Your task to perform on an android device: turn off improve location accuracy Image 0: 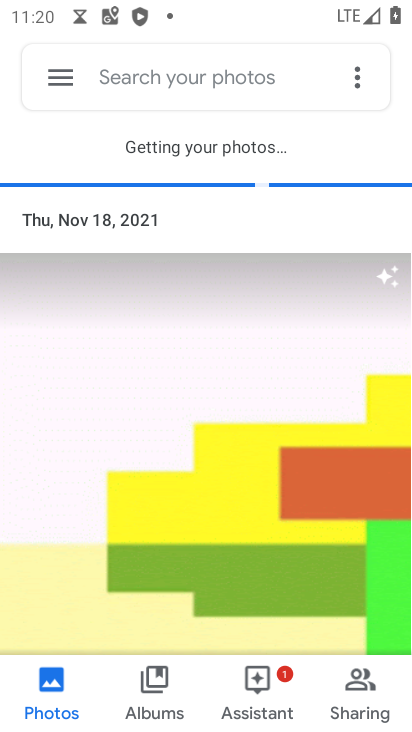
Step 0: press home button
Your task to perform on an android device: turn off improve location accuracy Image 1: 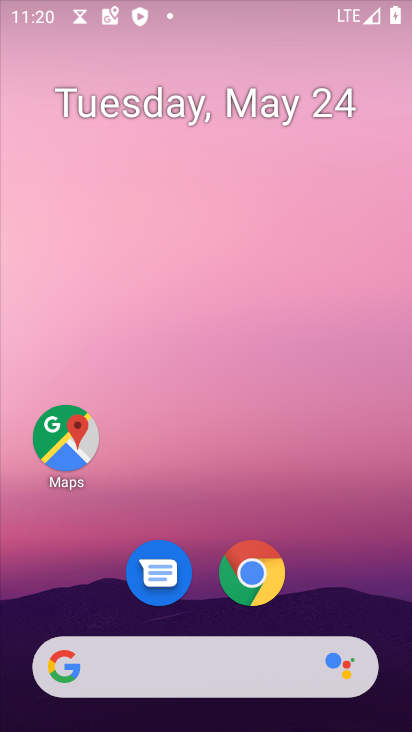
Step 1: drag from (112, 607) to (268, 132)
Your task to perform on an android device: turn off improve location accuracy Image 2: 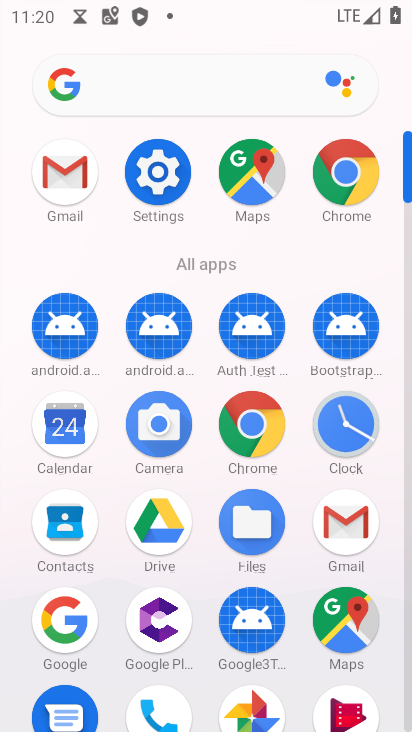
Step 2: drag from (186, 598) to (245, 443)
Your task to perform on an android device: turn off improve location accuracy Image 3: 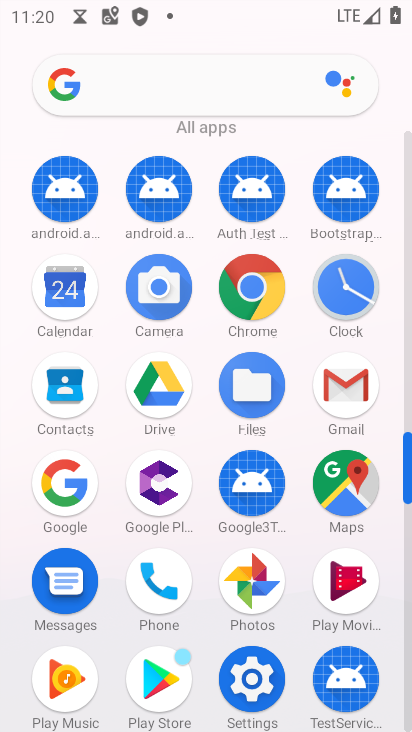
Step 3: click (237, 685)
Your task to perform on an android device: turn off improve location accuracy Image 4: 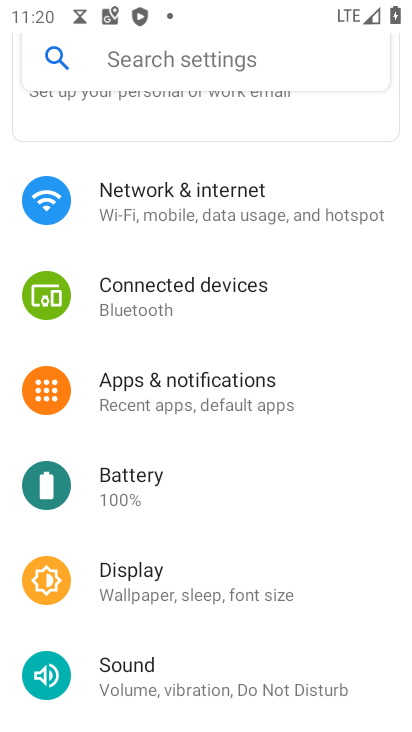
Step 4: drag from (188, 649) to (309, 219)
Your task to perform on an android device: turn off improve location accuracy Image 5: 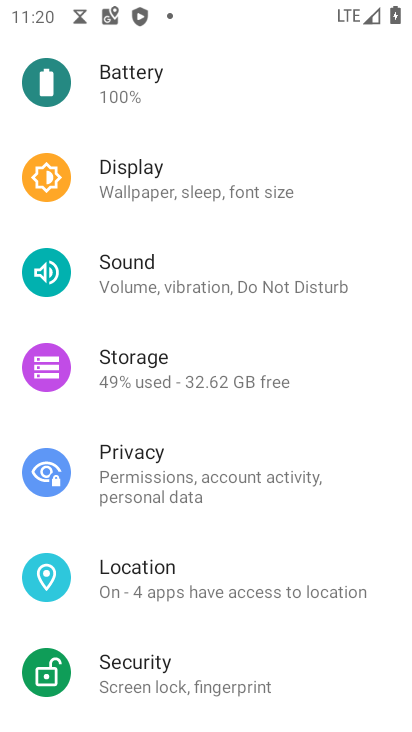
Step 5: click (154, 585)
Your task to perform on an android device: turn off improve location accuracy Image 6: 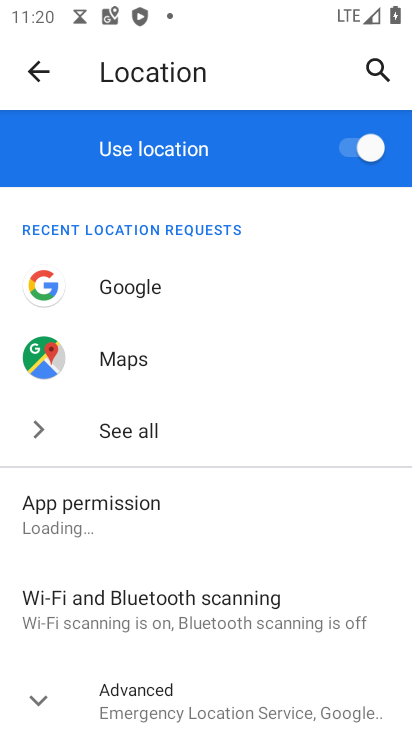
Step 6: click (146, 674)
Your task to perform on an android device: turn off improve location accuracy Image 7: 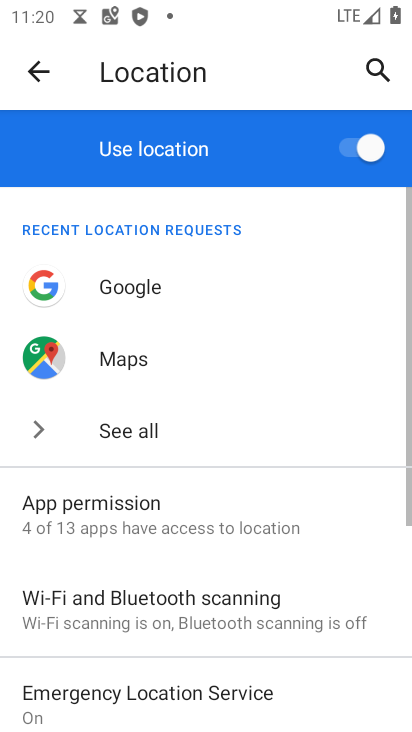
Step 7: drag from (158, 665) to (267, 276)
Your task to perform on an android device: turn off improve location accuracy Image 8: 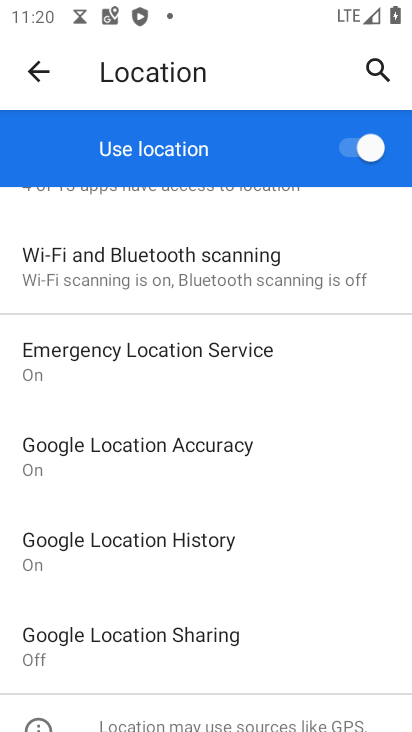
Step 8: click (194, 465)
Your task to perform on an android device: turn off improve location accuracy Image 9: 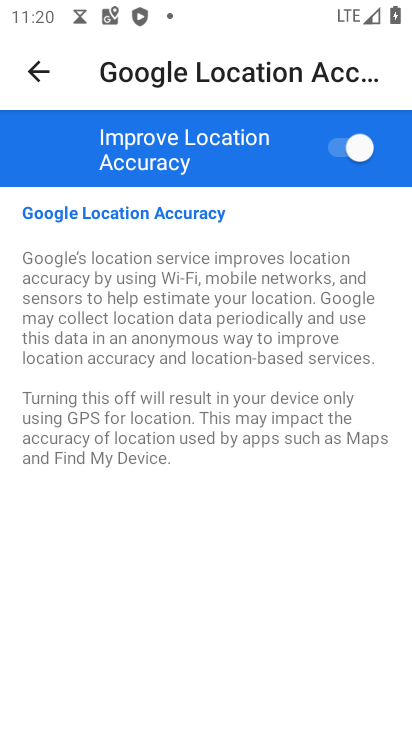
Step 9: click (323, 136)
Your task to perform on an android device: turn off improve location accuracy Image 10: 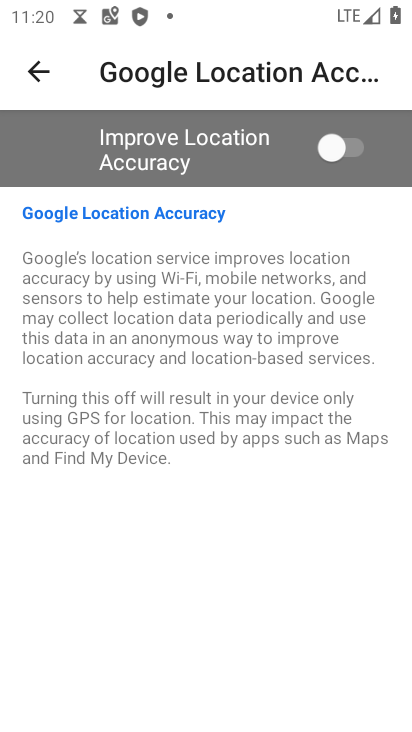
Step 10: task complete